Your task to perform on an android device: search for starred emails in the gmail app Image 0: 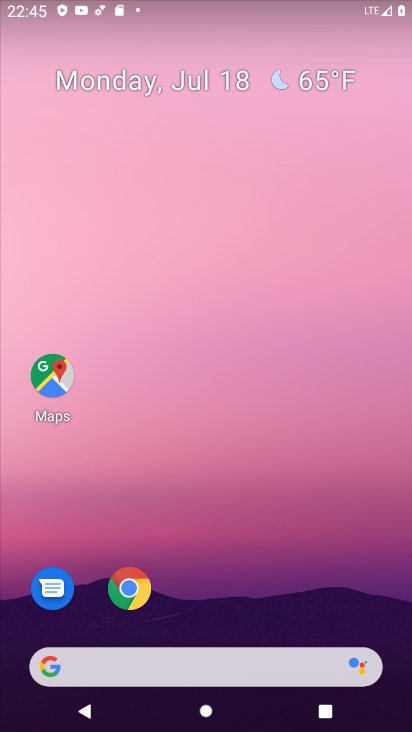
Step 0: drag from (273, 618) to (215, 62)
Your task to perform on an android device: search for starred emails in the gmail app Image 1: 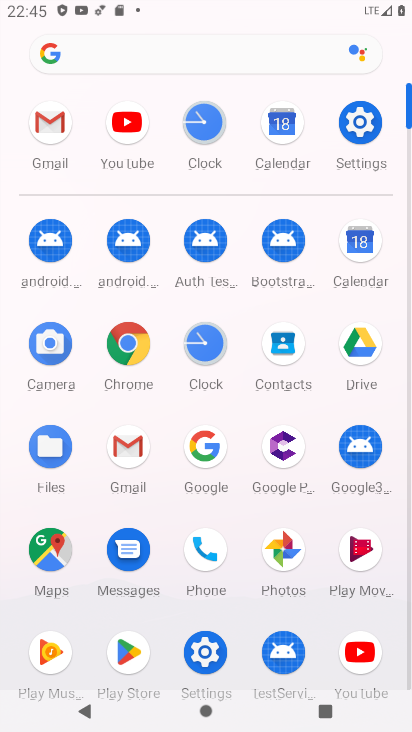
Step 1: click (47, 118)
Your task to perform on an android device: search for starred emails in the gmail app Image 2: 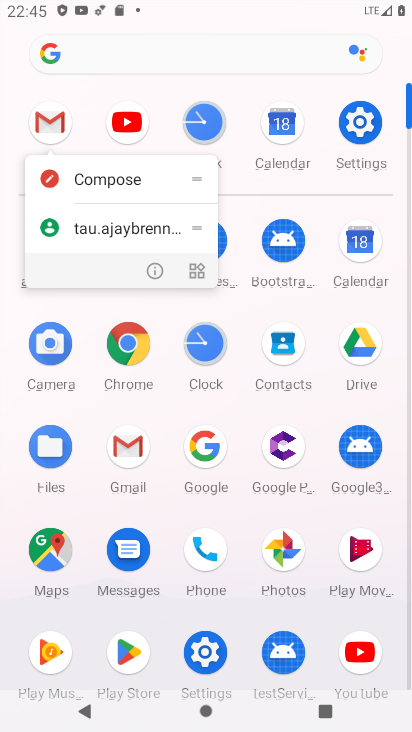
Step 2: click (53, 127)
Your task to perform on an android device: search for starred emails in the gmail app Image 3: 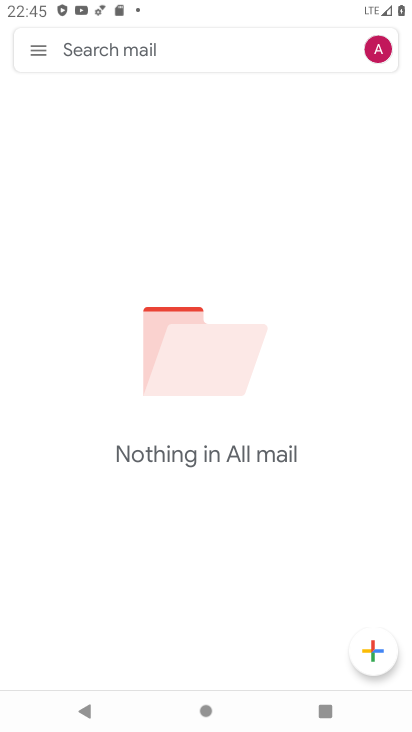
Step 3: click (33, 51)
Your task to perform on an android device: search for starred emails in the gmail app Image 4: 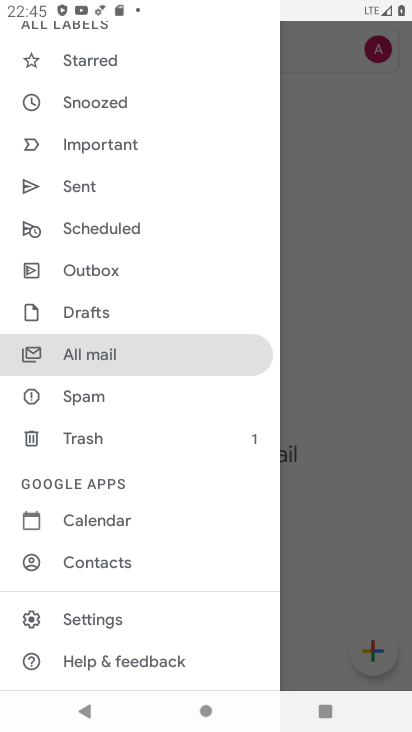
Step 4: click (85, 67)
Your task to perform on an android device: search for starred emails in the gmail app Image 5: 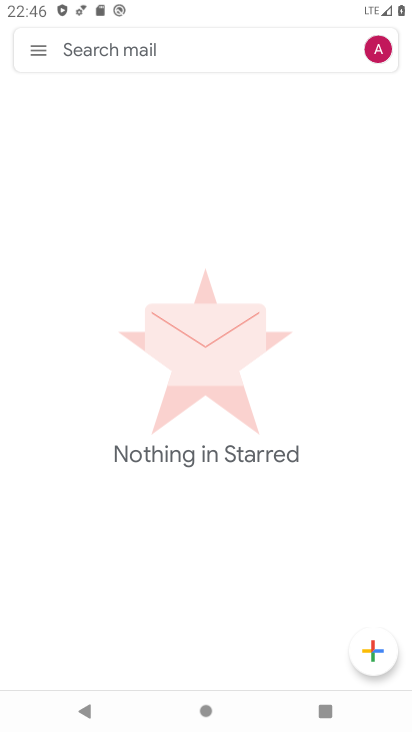
Step 5: task complete